Your task to perform on an android device: Open sound settings Image 0: 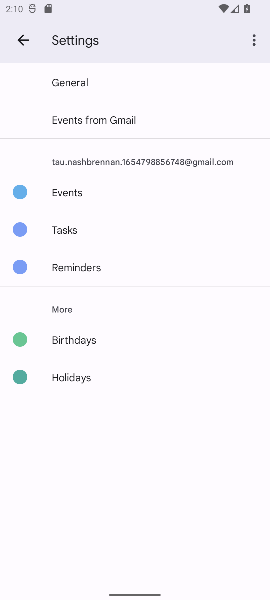
Step 0: press home button
Your task to perform on an android device: Open sound settings Image 1: 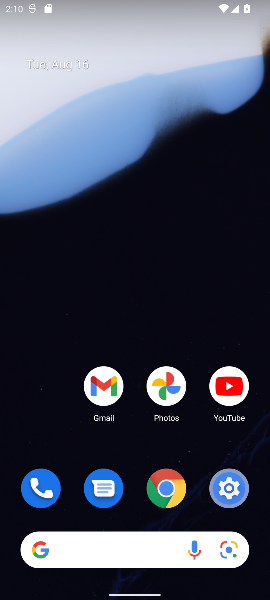
Step 1: drag from (65, 428) to (53, 165)
Your task to perform on an android device: Open sound settings Image 2: 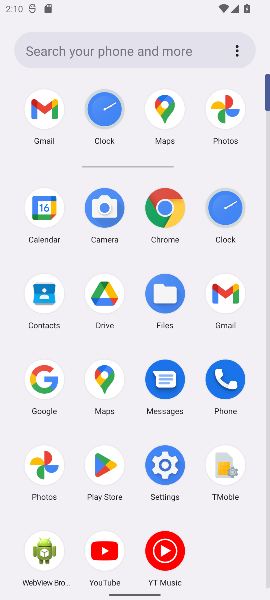
Step 2: click (164, 474)
Your task to perform on an android device: Open sound settings Image 3: 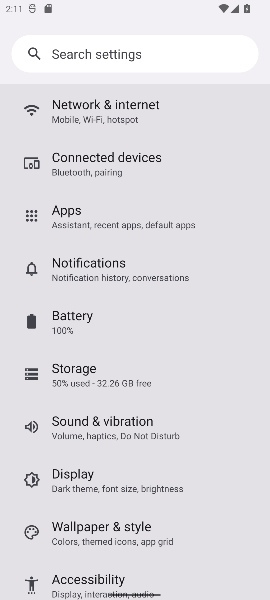
Step 3: click (101, 426)
Your task to perform on an android device: Open sound settings Image 4: 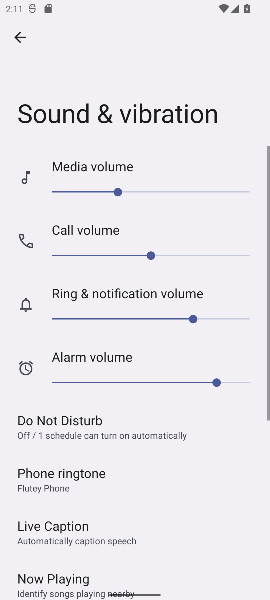
Step 4: task complete